Your task to perform on an android device: Open calendar and show me the third week of next month Image 0: 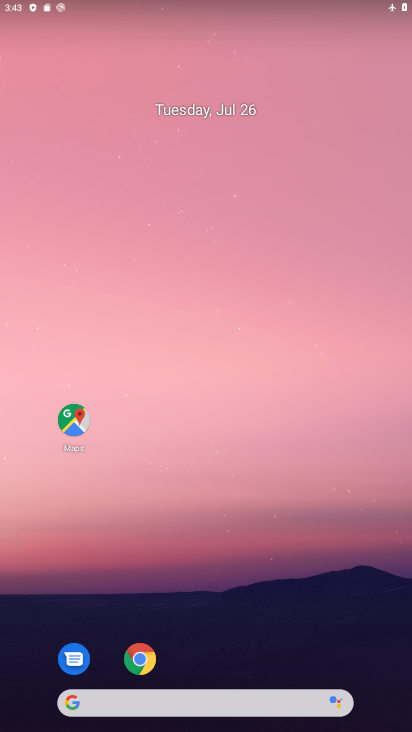
Step 0: drag from (221, 599) to (242, 3)
Your task to perform on an android device: Open calendar and show me the third week of next month Image 1: 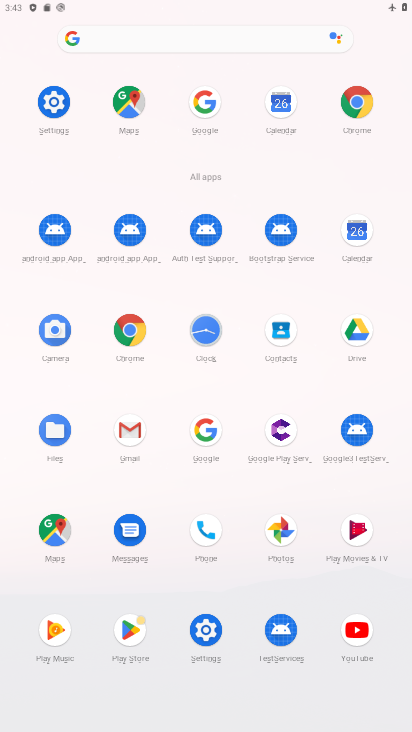
Step 1: click (354, 236)
Your task to perform on an android device: Open calendar and show me the third week of next month Image 2: 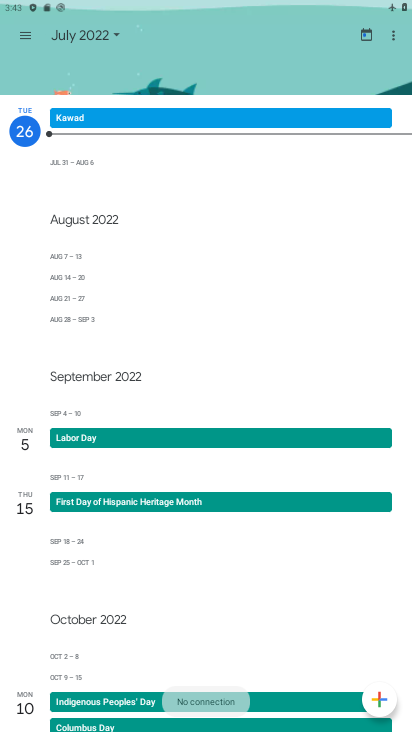
Step 2: click (88, 37)
Your task to perform on an android device: Open calendar and show me the third week of next month Image 3: 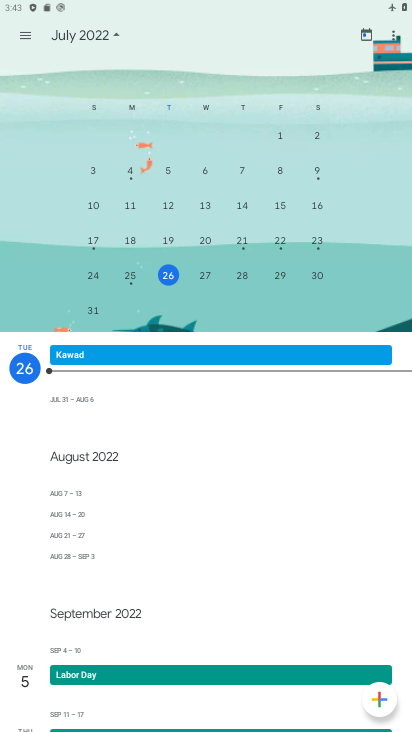
Step 3: drag from (285, 260) to (389, 0)
Your task to perform on an android device: Open calendar and show me the third week of next month Image 4: 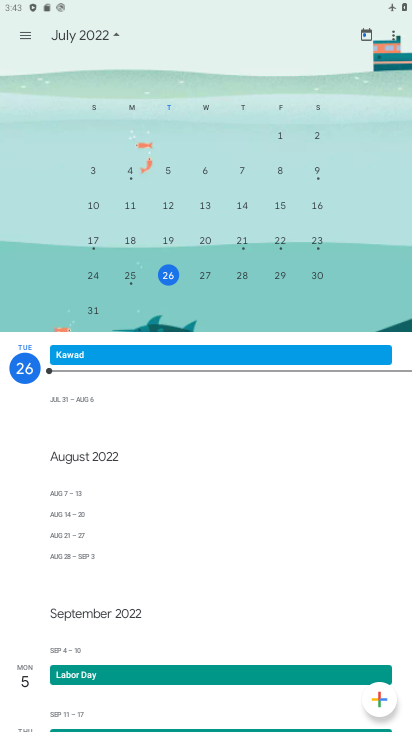
Step 4: click (245, 250)
Your task to perform on an android device: Open calendar and show me the third week of next month Image 5: 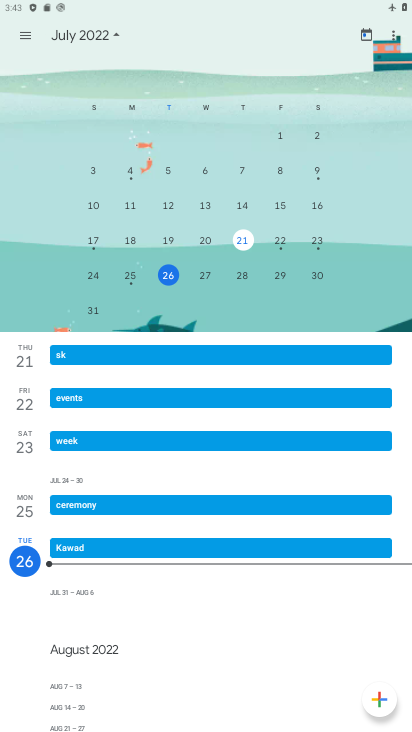
Step 5: task complete